Your task to perform on an android device: change keyboard looks Image 0: 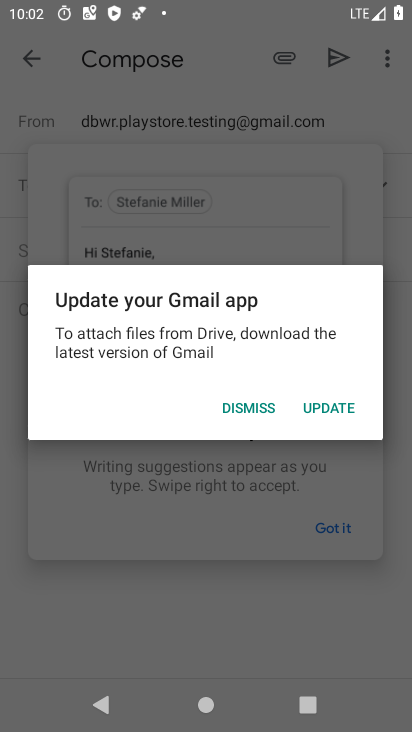
Step 0: press home button
Your task to perform on an android device: change keyboard looks Image 1: 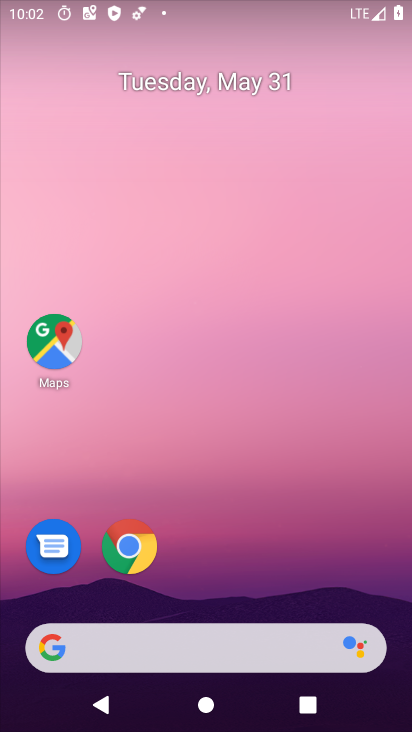
Step 1: drag from (229, 569) to (38, 10)
Your task to perform on an android device: change keyboard looks Image 2: 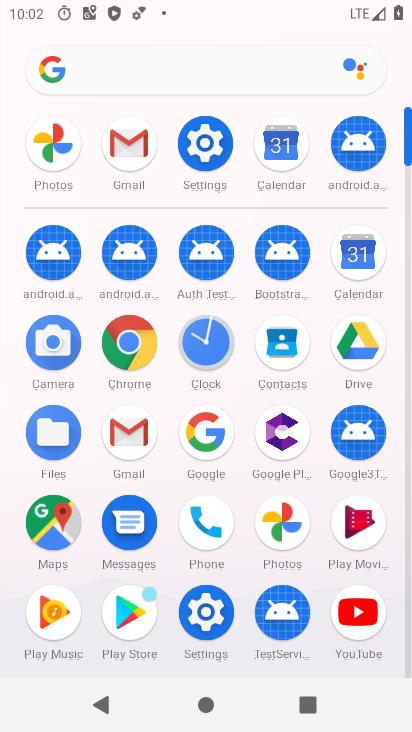
Step 2: click (214, 143)
Your task to perform on an android device: change keyboard looks Image 3: 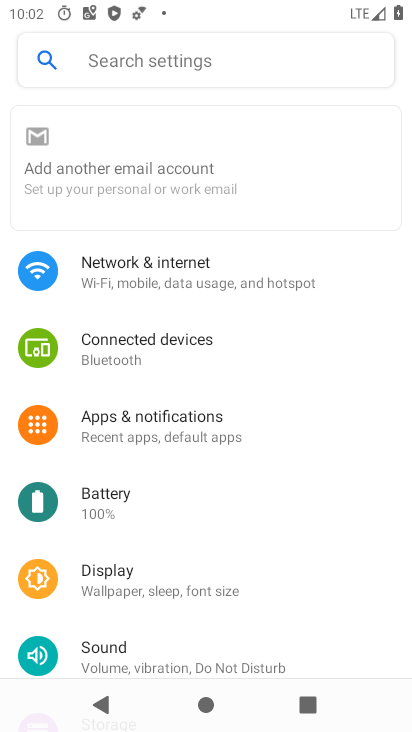
Step 3: click (201, 147)
Your task to perform on an android device: change keyboard looks Image 4: 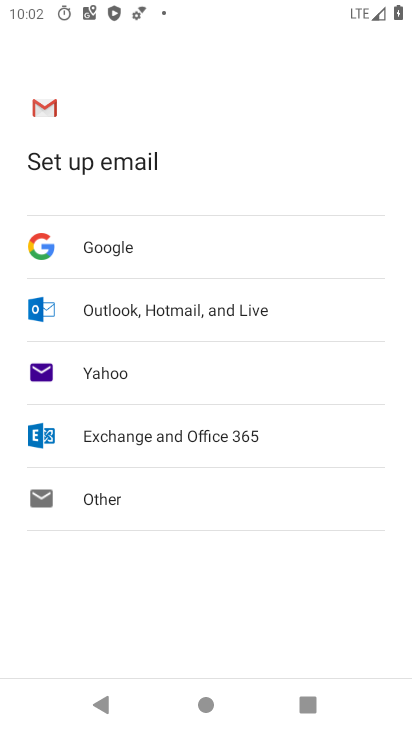
Step 4: click (102, 701)
Your task to perform on an android device: change keyboard looks Image 5: 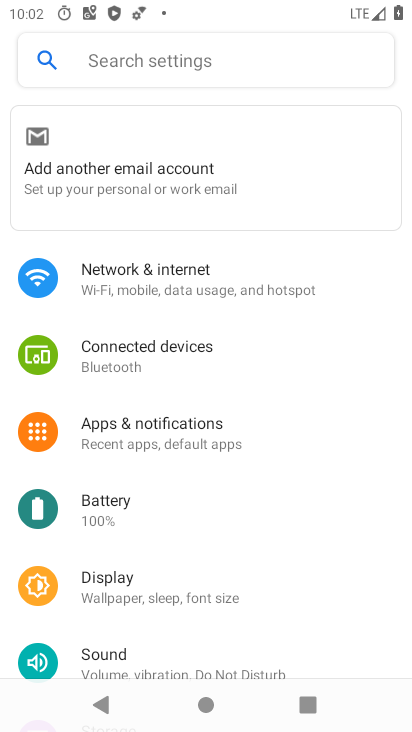
Step 5: drag from (245, 652) to (86, 85)
Your task to perform on an android device: change keyboard looks Image 6: 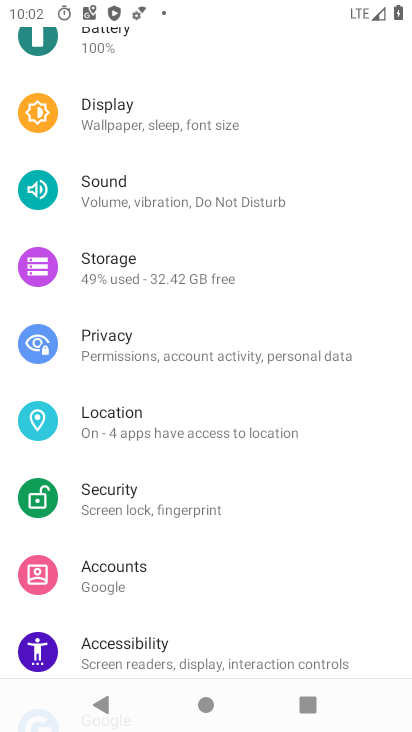
Step 6: drag from (196, 583) to (91, 148)
Your task to perform on an android device: change keyboard looks Image 7: 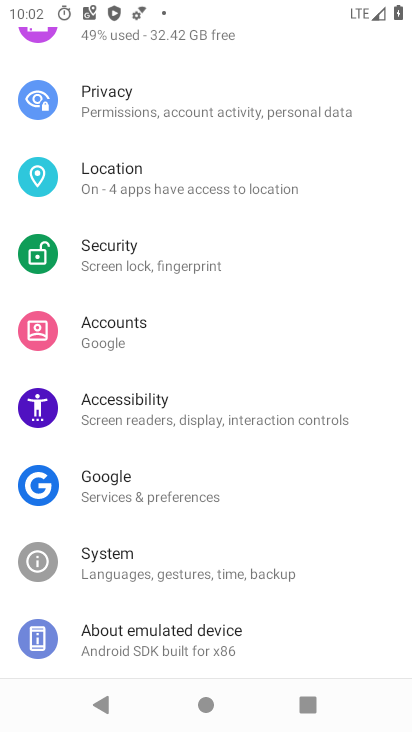
Step 7: click (117, 578)
Your task to perform on an android device: change keyboard looks Image 8: 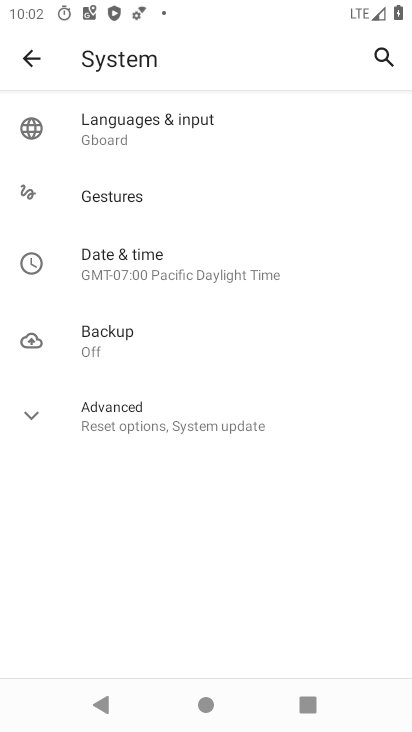
Step 8: click (173, 119)
Your task to perform on an android device: change keyboard looks Image 9: 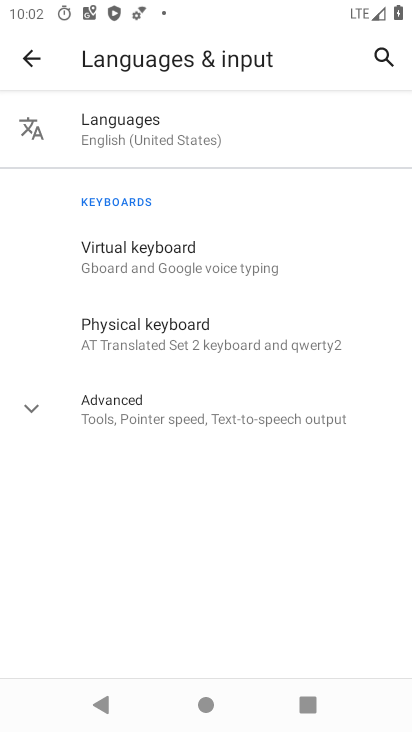
Step 9: click (147, 258)
Your task to perform on an android device: change keyboard looks Image 10: 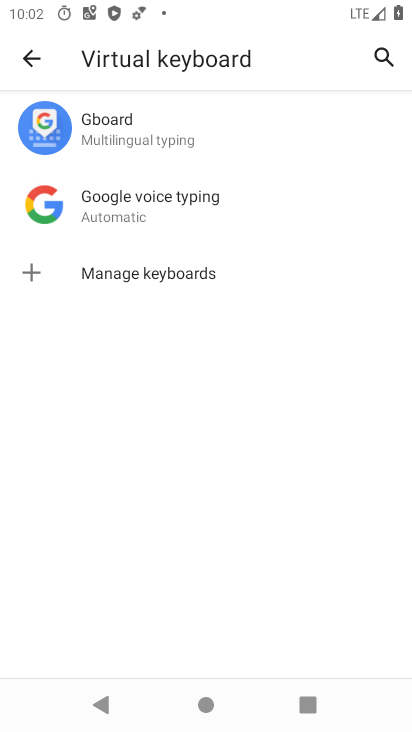
Step 10: click (169, 134)
Your task to perform on an android device: change keyboard looks Image 11: 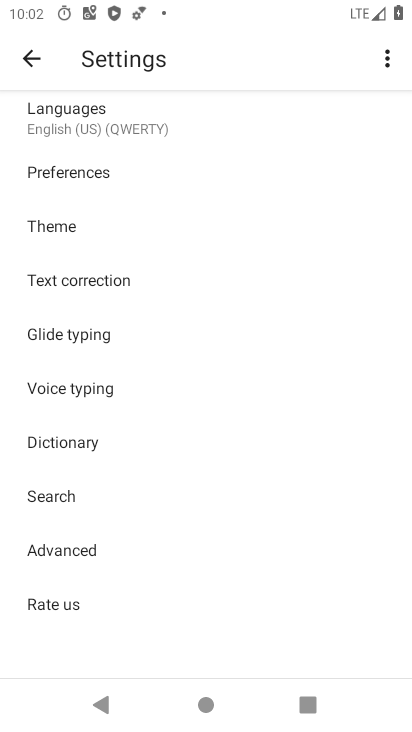
Step 11: click (73, 226)
Your task to perform on an android device: change keyboard looks Image 12: 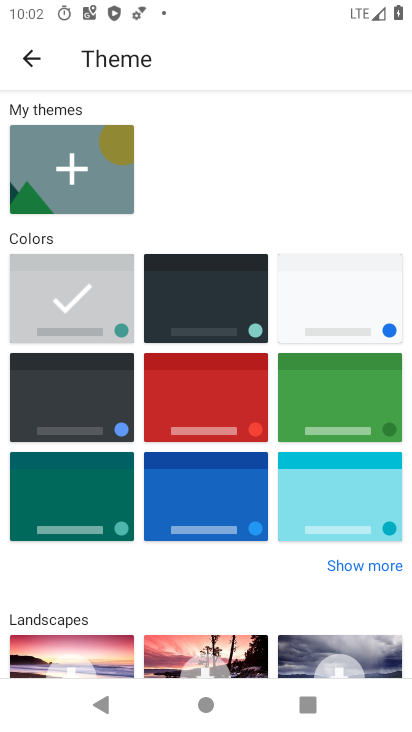
Step 12: click (225, 330)
Your task to perform on an android device: change keyboard looks Image 13: 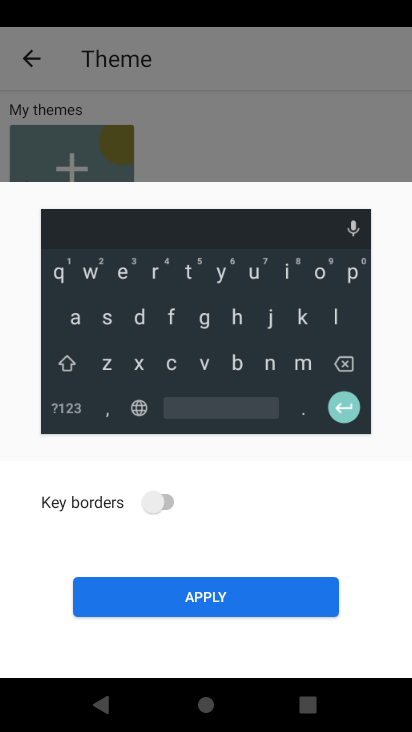
Step 13: click (219, 598)
Your task to perform on an android device: change keyboard looks Image 14: 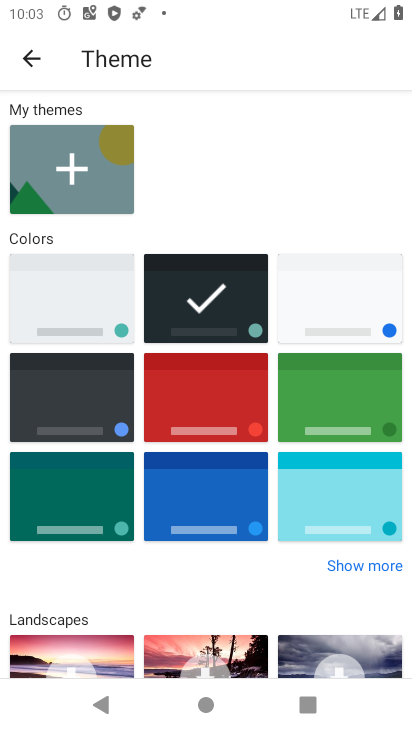
Step 14: task complete